Your task to perform on an android device: Open the map Image 0: 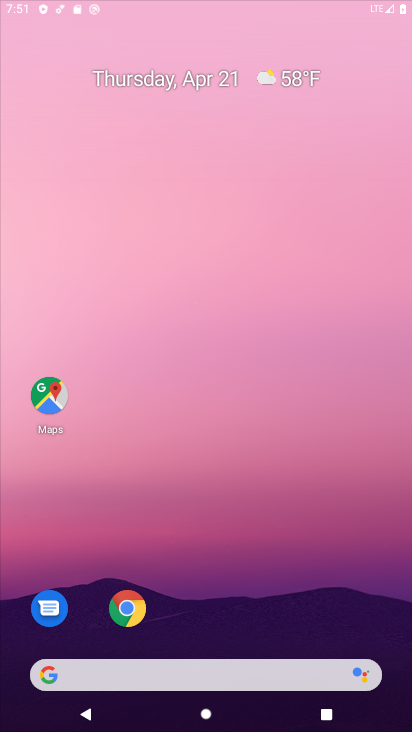
Step 0: drag from (303, 597) to (236, 288)
Your task to perform on an android device: Open the map Image 1: 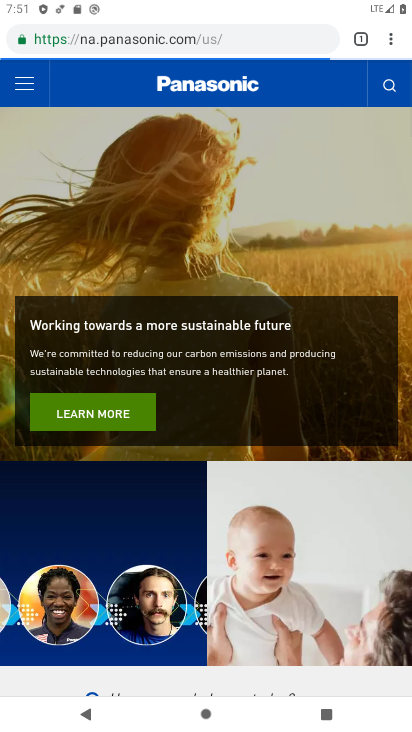
Step 1: press home button
Your task to perform on an android device: Open the map Image 2: 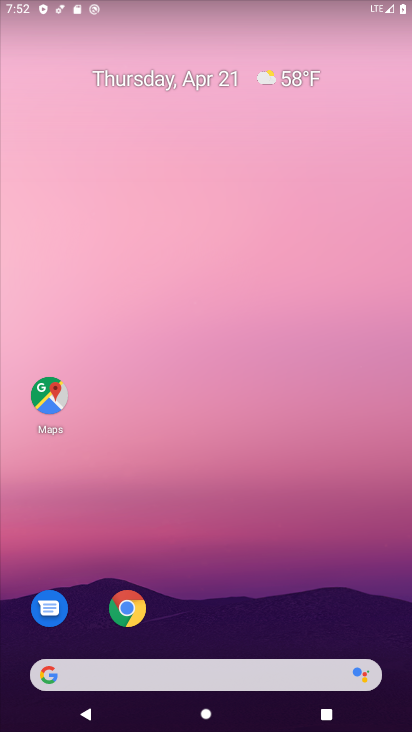
Step 2: click (51, 394)
Your task to perform on an android device: Open the map Image 3: 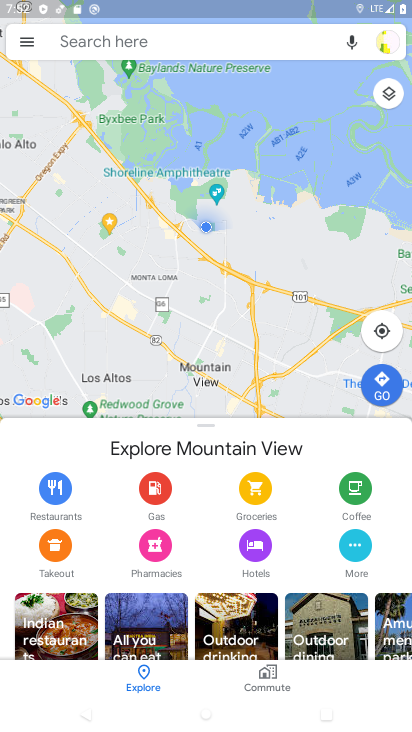
Step 3: task complete